Your task to perform on an android device: manage bookmarks in the chrome app Image 0: 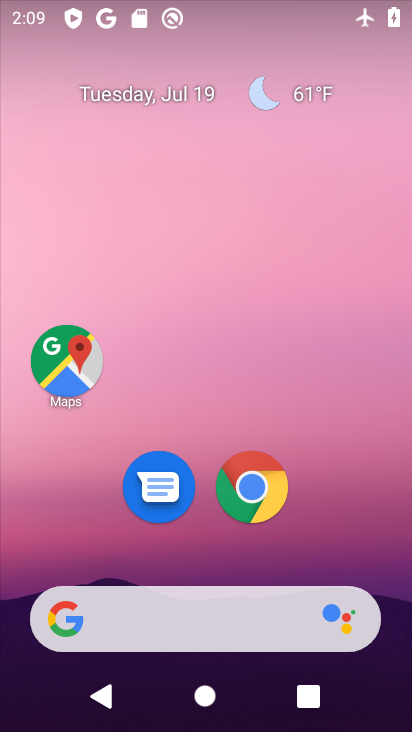
Step 0: click (265, 472)
Your task to perform on an android device: manage bookmarks in the chrome app Image 1: 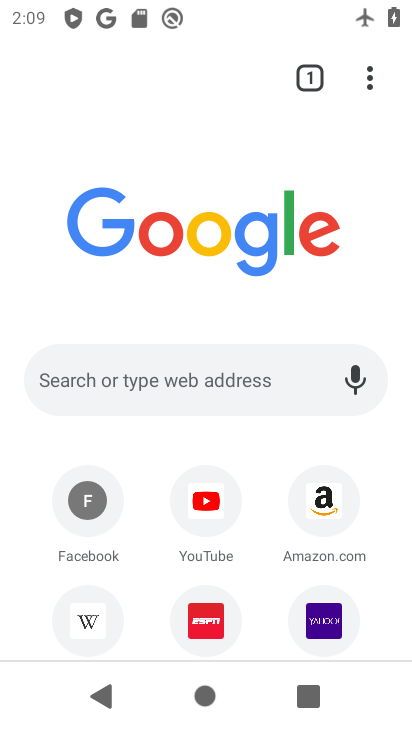
Step 1: drag from (370, 71) to (86, 297)
Your task to perform on an android device: manage bookmarks in the chrome app Image 2: 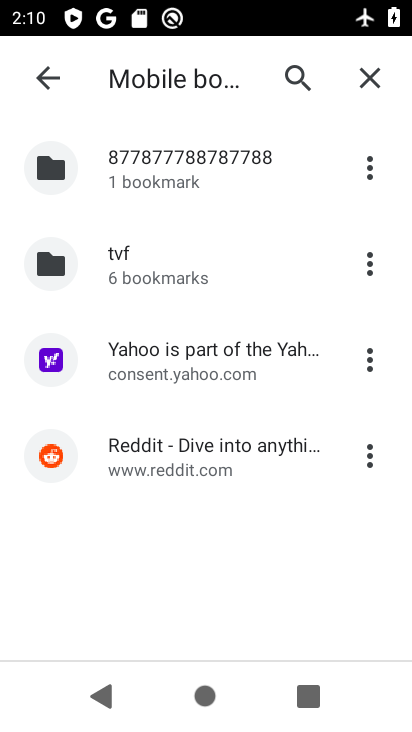
Step 2: click (371, 357)
Your task to perform on an android device: manage bookmarks in the chrome app Image 3: 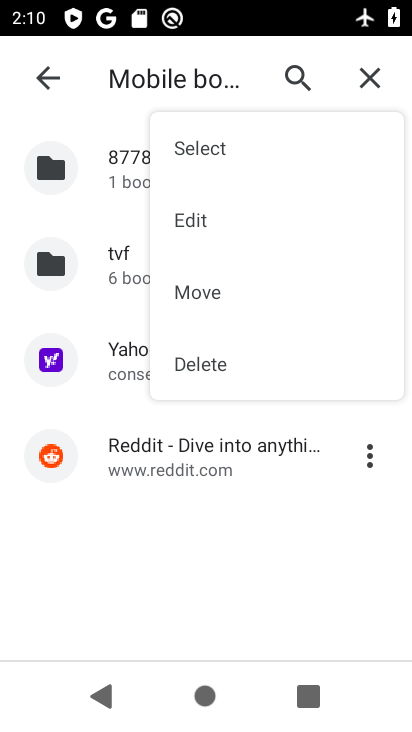
Step 3: click (221, 352)
Your task to perform on an android device: manage bookmarks in the chrome app Image 4: 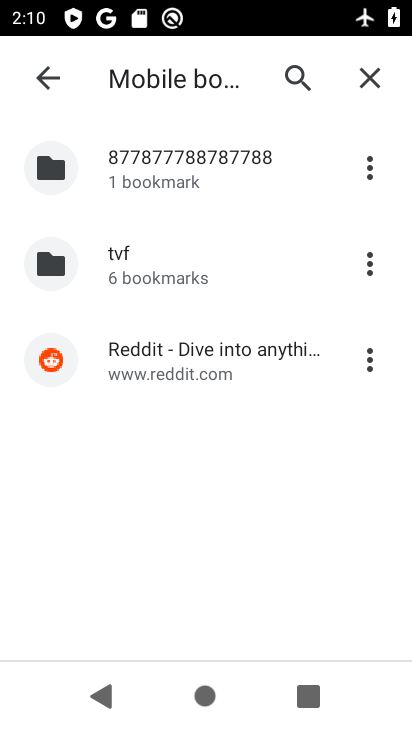
Step 4: task complete